Your task to perform on an android device: star an email in the gmail app Image 0: 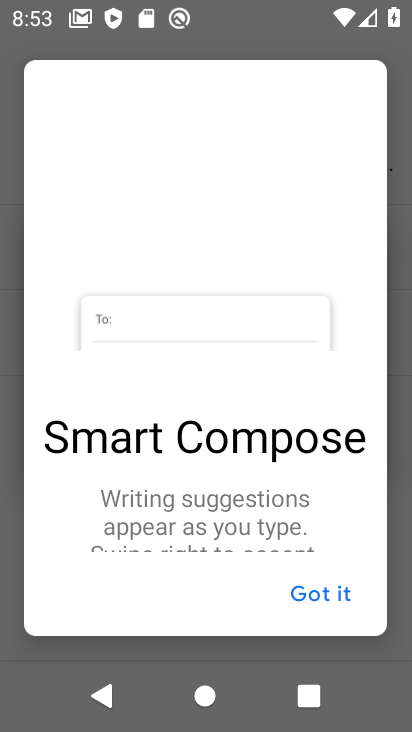
Step 0: press home button
Your task to perform on an android device: star an email in the gmail app Image 1: 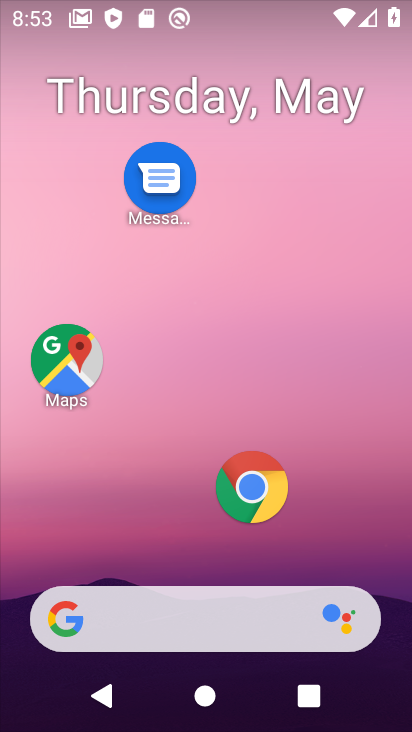
Step 1: drag from (218, 557) to (153, 8)
Your task to perform on an android device: star an email in the gmail app Image 2: 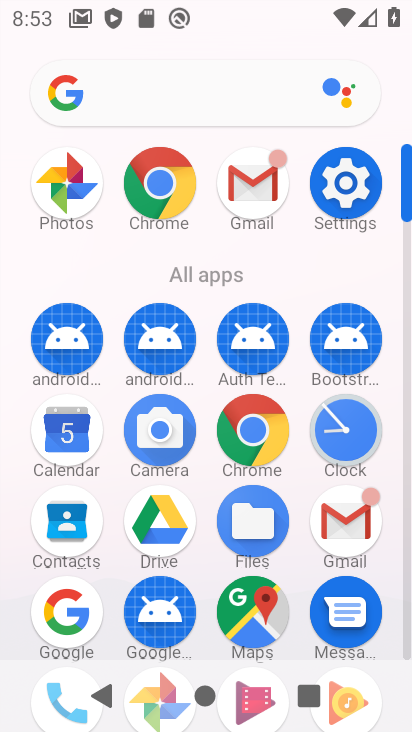
Step 2: click (336, 526)
Your task to perform on an android device: star an email in the gmail app Image 3: 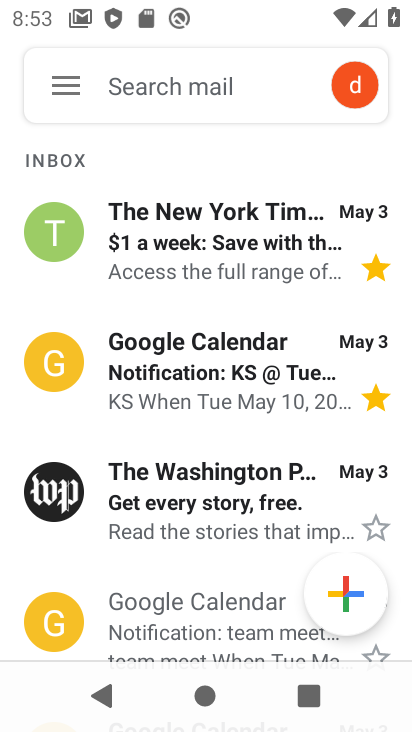
Step 3: click (374, 518)
Your task to perform on an android device: star an email in the gmail app Image 4: 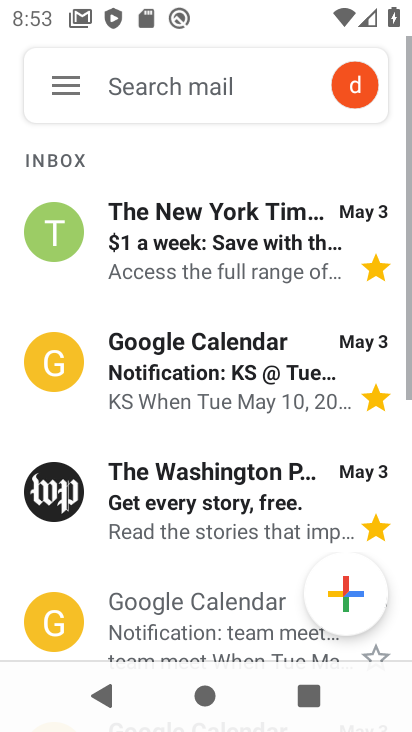
Step 4: task complete